Your task to perform on an android device: uninstall "Mercado Libre" Image 0: 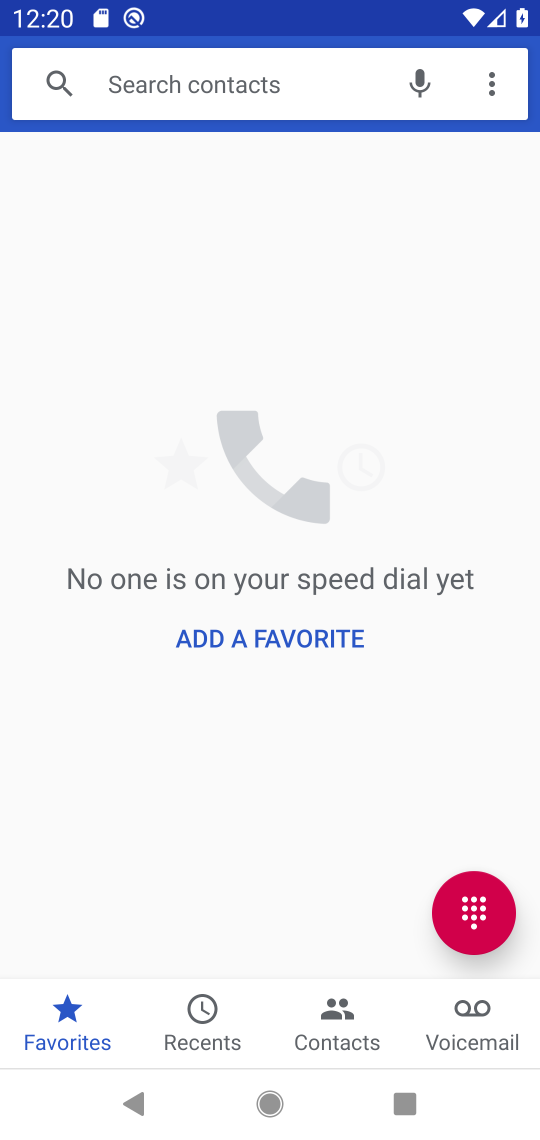
Step 0: press home button
Your task to perform on an android device: uninstall "Mercado Libre" Image 1: 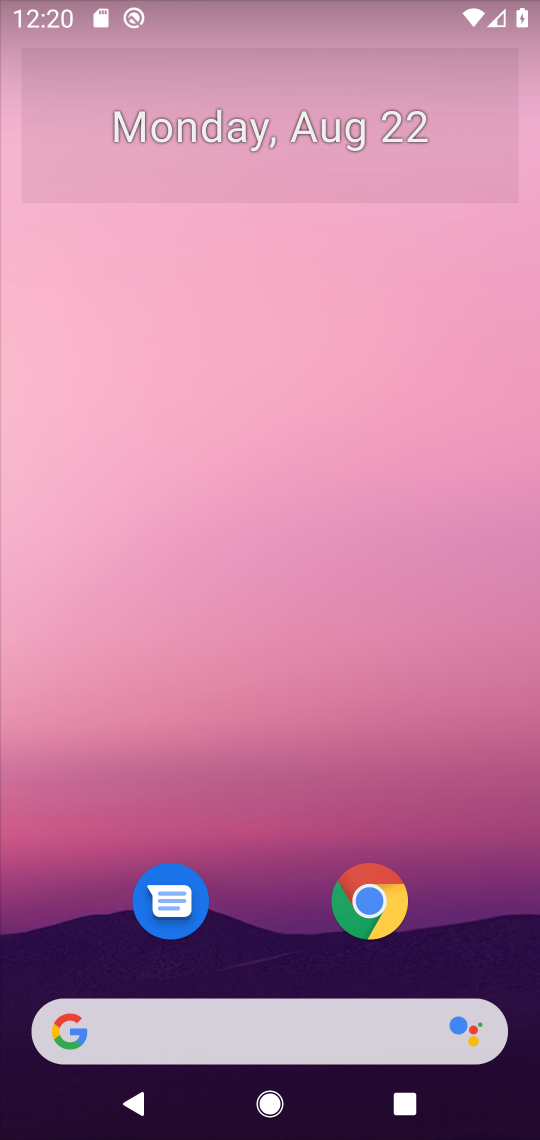
Step 1: drag from (278, 962) to (331, 182)
Your task to perform on an android device: uninstall "Mercado Libre" Image 2: 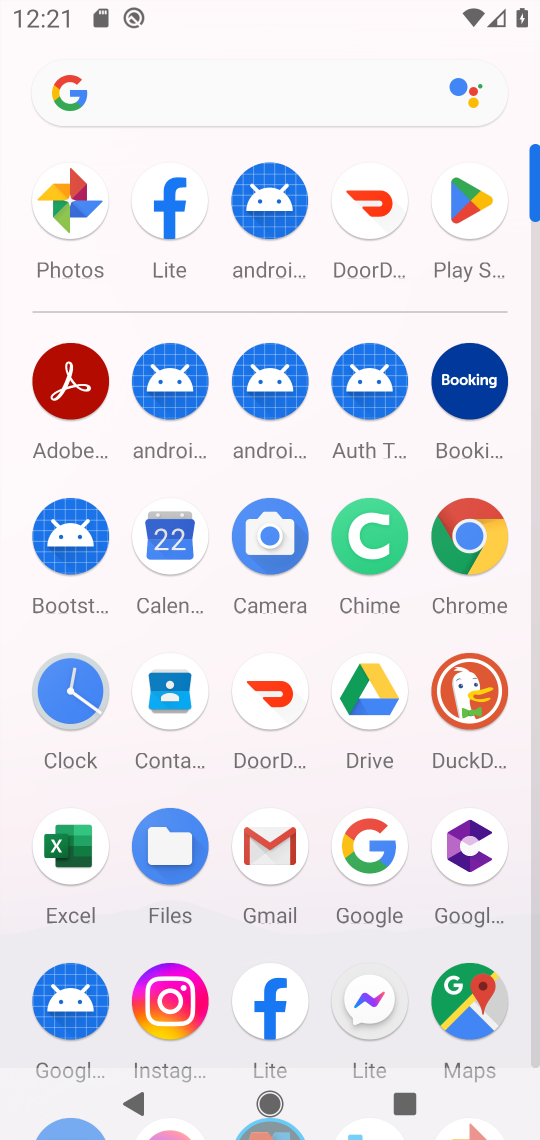
Step 2: click (442, 231)
Your task to perform on an android device: uninstall "Mercado Libre" Image 3: 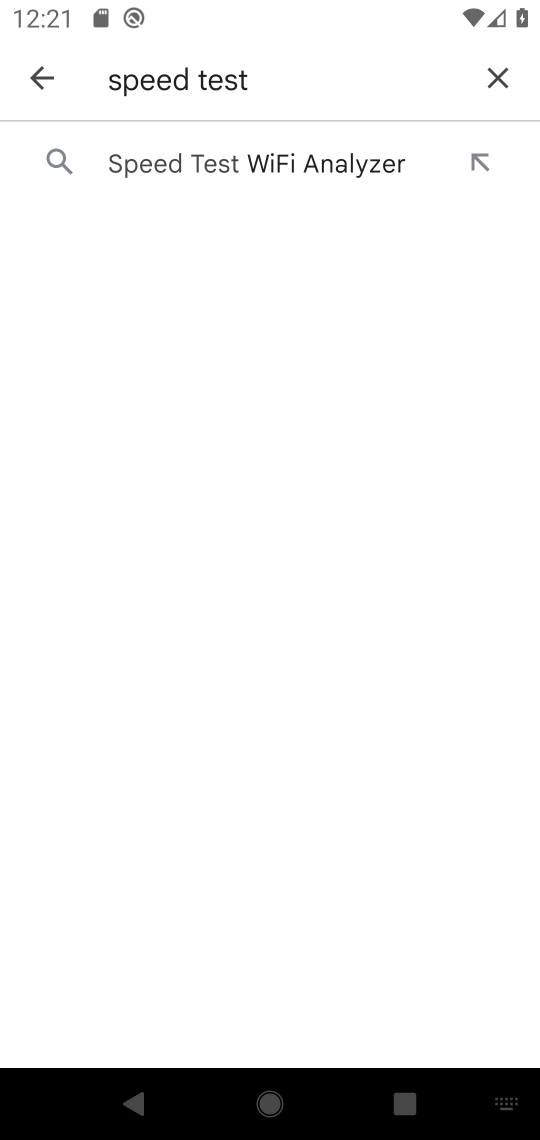
Step 3: click (496, 77)
Your task to perform on an android device: uninstall "Mercado Libre" Image 4: 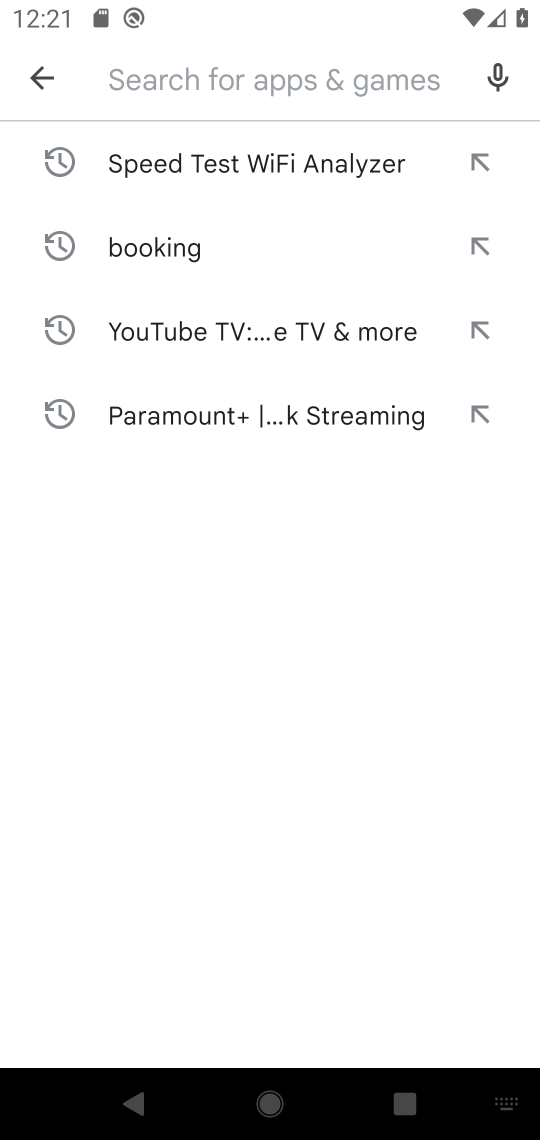
Step 4: type "mercado"
Your task to perform on an android device: uninstall "Mercado Libre" Image 5: 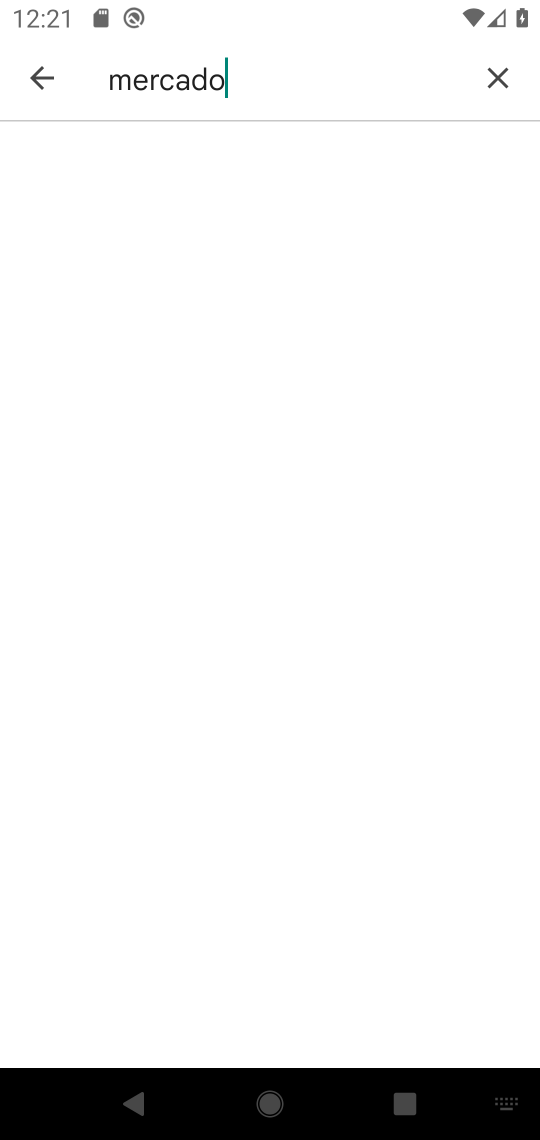
Step 5: task complete